Your task to perform on an android device: add a contact in the contacts app Image 0: 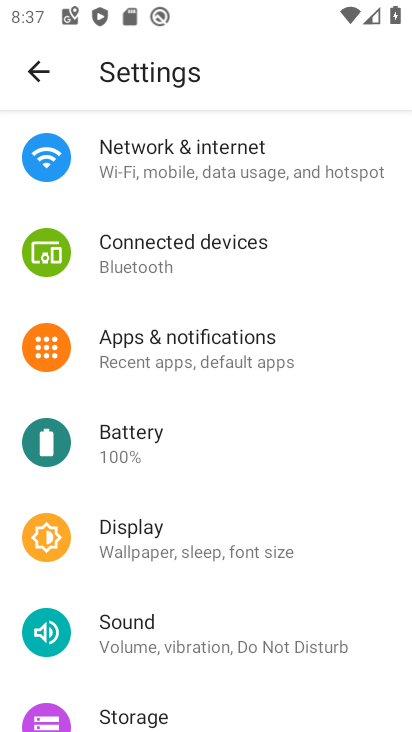
Step 0: press home button
Your task to perform on an android device: add a contact in the contacts app Image 1: 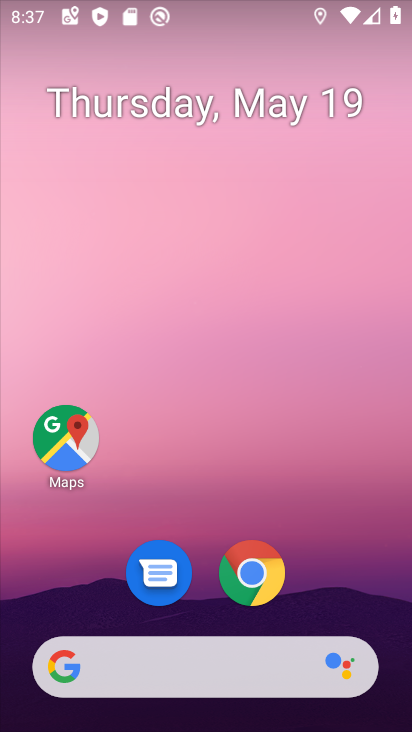
Step 1: drag from (330, 615) to (282, 10)
Your task to perform on an android device: add a contact in the contacts app Image 2: 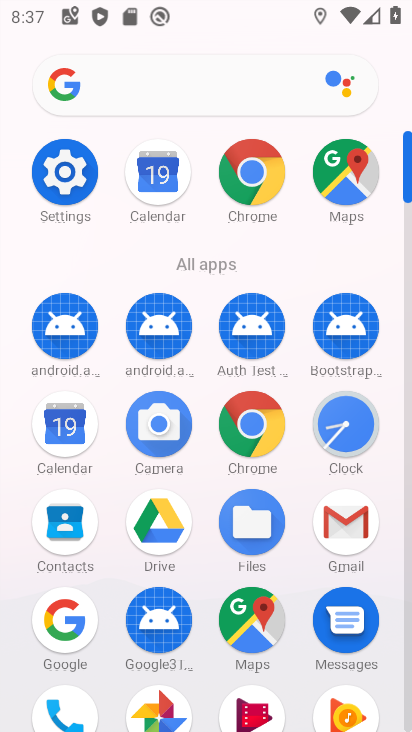
Step 2: click (70, 517)
Your task to perform on an android device: add a contact in the contacts app Image 3: 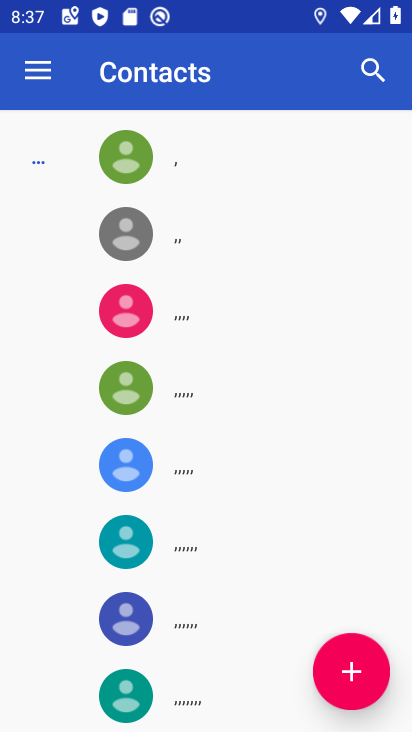
Step 3: click (356, 666)
Your task to perform on an android device: add a contact in the contacts app Image 4: 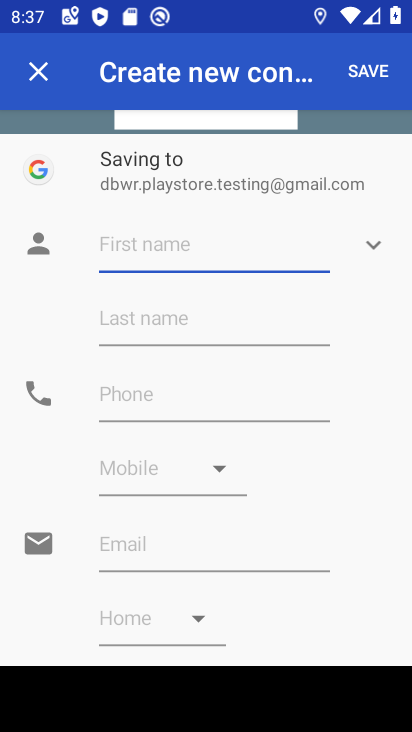
Step 4: click (161, 237)
Your task to perform on an android device: add a contact in the contacts app Image 5: 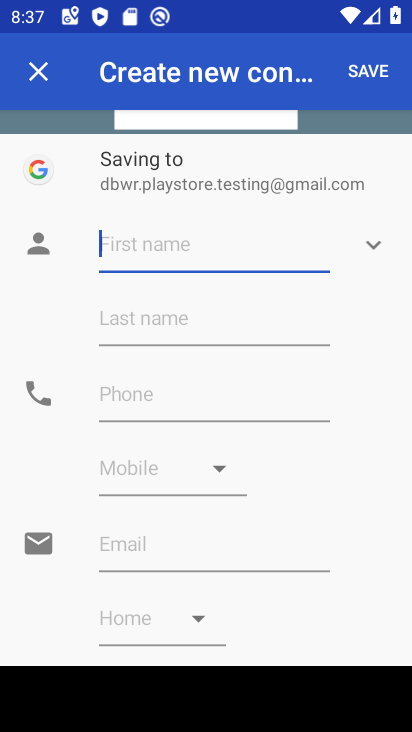
Step 5: type "mona"
Your task to perform on an android device: add a contact in the contacts app Image 6: 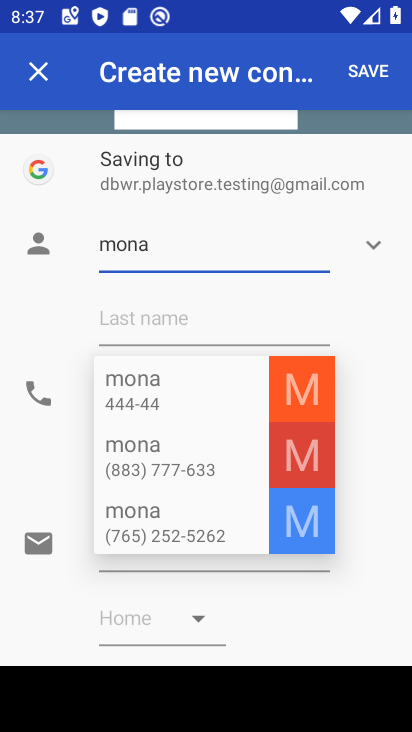
Step 6: click (386, 394)
Your task to perform on an android device: add a contact in the contacts app Image 7: 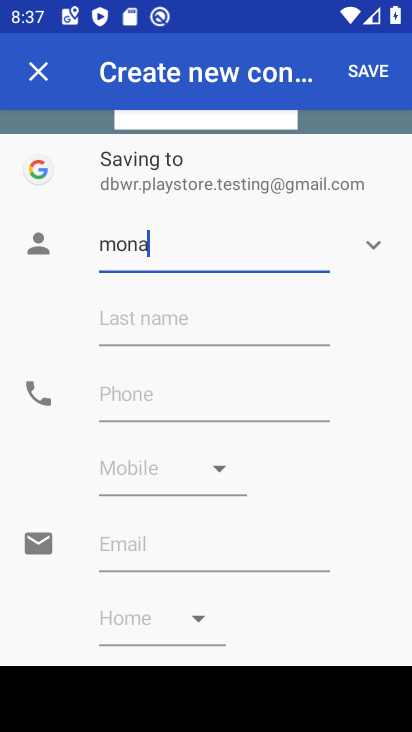
Step 7: click (109, 407)
Your task to perform on an android device: add a contact in the contacts app Image 8: 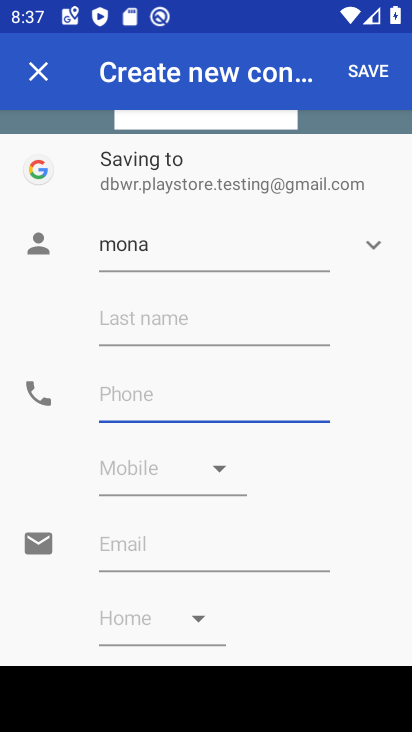
Step 8: type "87464757"
Your task to perform on an android device: add a contact in the contacts app Image 9: 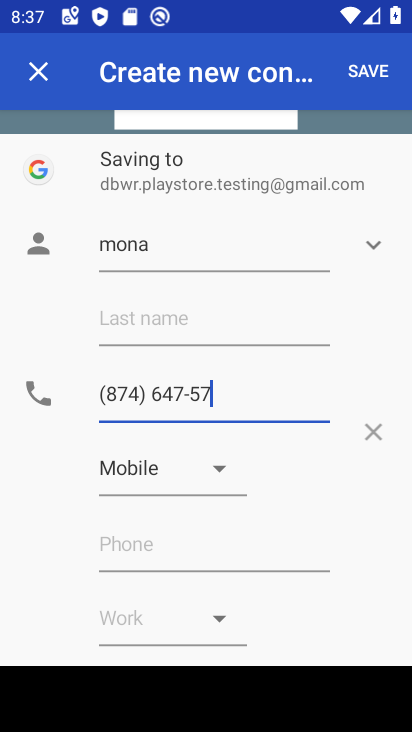
Step 9: click (373, 81)
Your task to perform on an android device: add a contact in the contacts app Image 10: 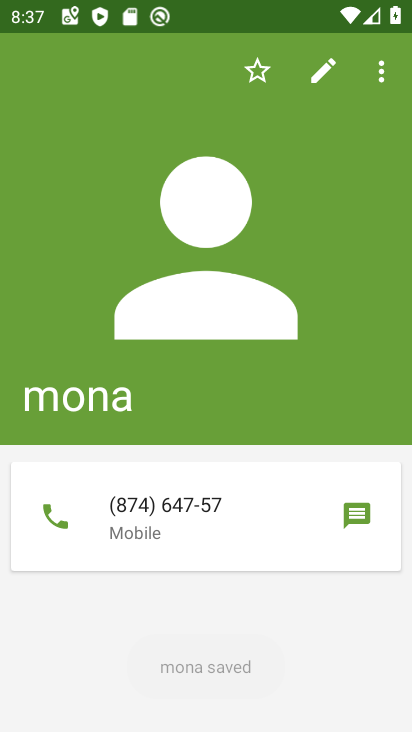
Step 10: task complete